Your task to perform on an android device: turn vacation reply on in the gmail app Image 0: 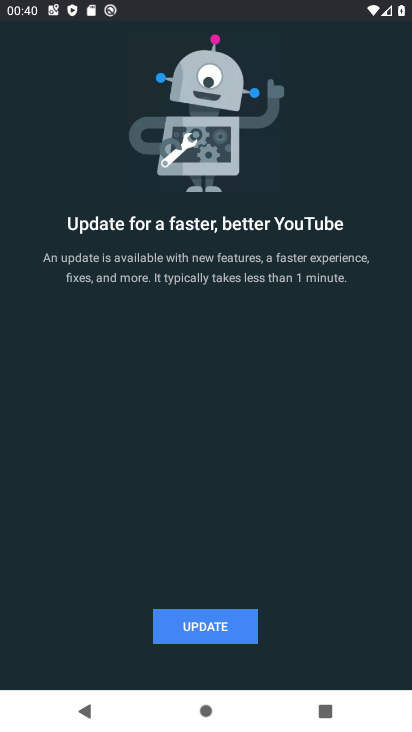
Step 0: press home button
Your task to perform on an android device: turn vacation reply on in the gmail app Image 1: 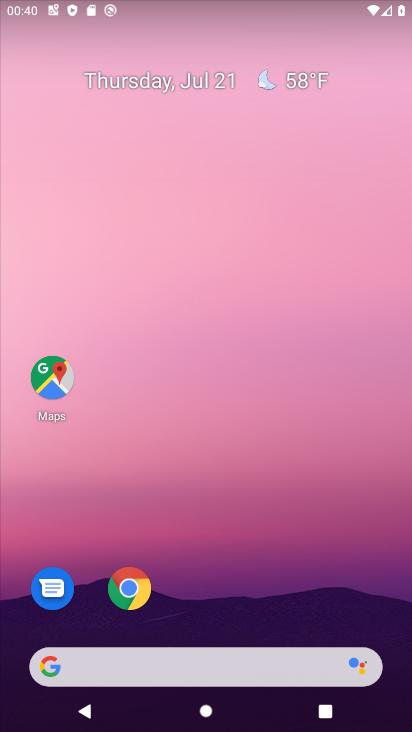
Step 1: drag from (248, 626) to (184, 44)
Your task to perform on an android device: turn vacation reply on in the gmail app Image 2: 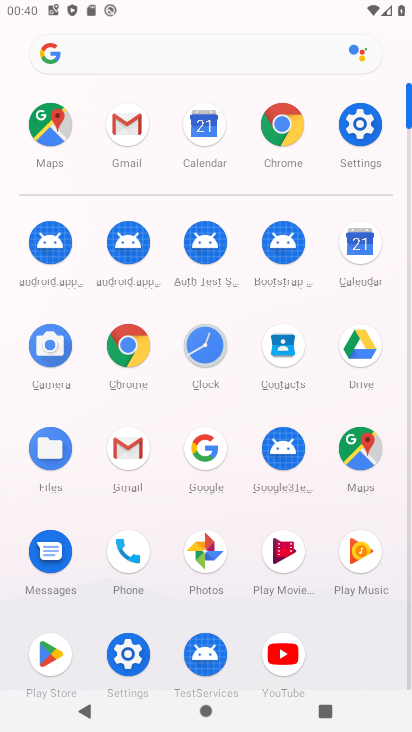
Step 2: click (129, 451)
Your task to perform on an android device: turn vacation reply on in the gmail app Image 3: 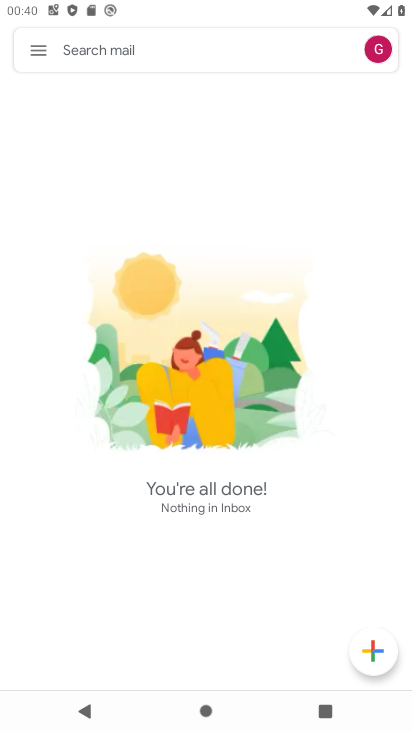
Step 3: click (29, 39)
Your task to perform on an android device: turn vacation reply on in the gmail app Image 4: 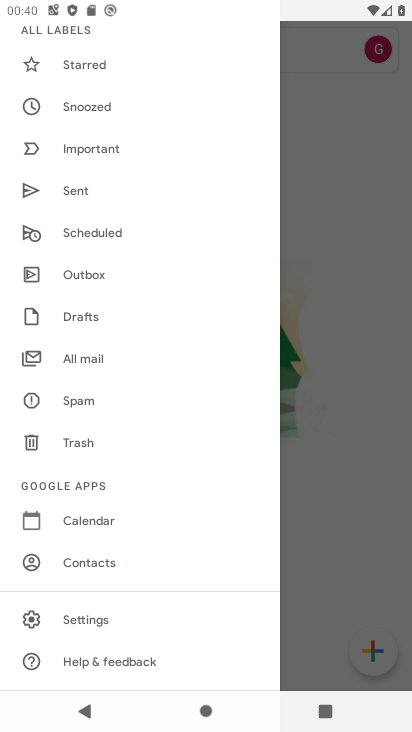
Step 4: click (91, 617)
Your task to perform on an android device: turn vacation reply on in the gmail app Image 5: 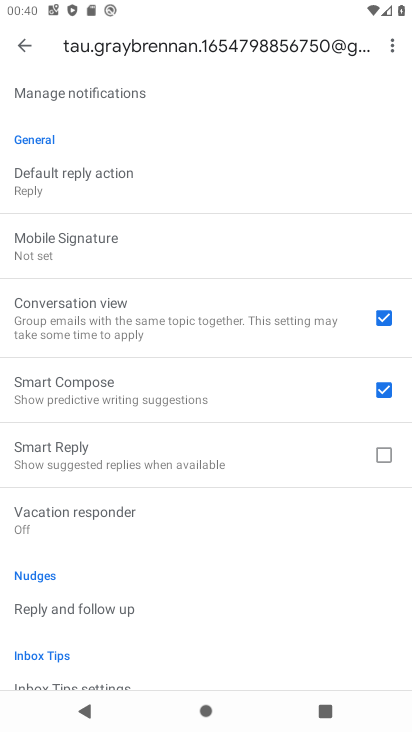
Step 5: click (97, 521)
Your task to perform on an android device: turn vacation reply on in the gmail app Image 6: 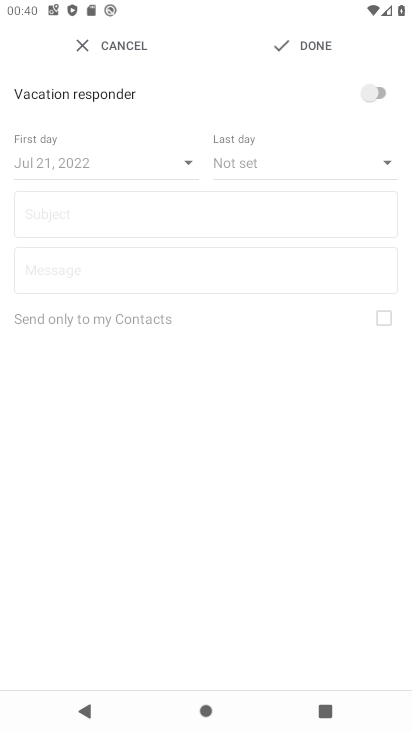
Step 6: click (377, 85)
Your task to perform on an android device: turn vacation reply on in the gmail app Image 7: 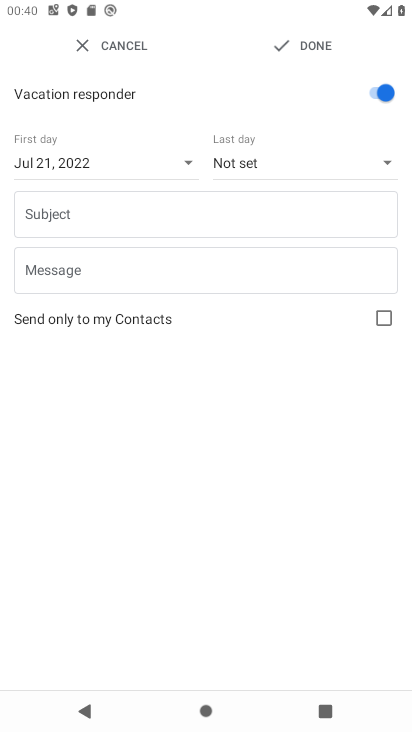
Step 7: click (120, 276)
Your task to perform on an android device: turn vacation reply on in the gmail app Image 8: 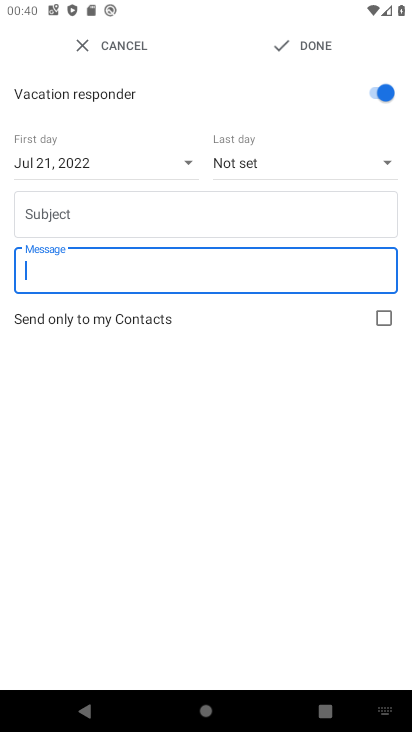
Step 8: type "message"
Your task to perform on an android device: turn vacation reply on in the gmail app Image 9: 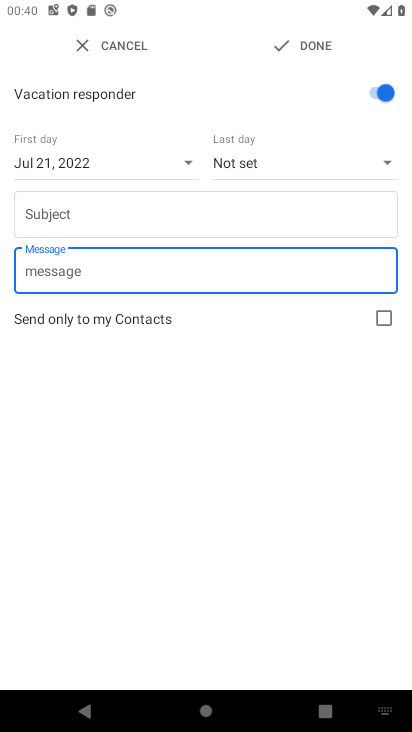
Step 9: click (317, 38)
Your task to perform on an android device: turn vacation reply on in the gmail app Image 10: 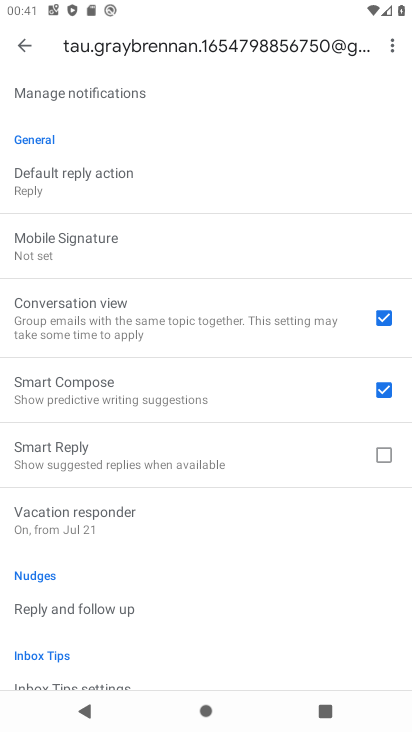
Step 10: task complete